Your task to perform on an android device: change notification settings in the gmail app Image 0: 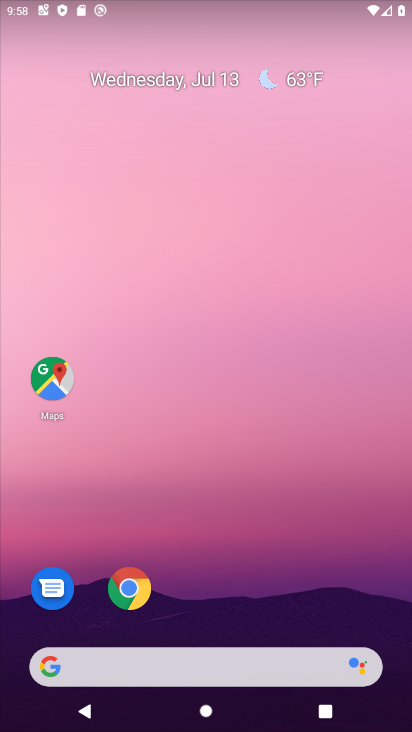
Step 0: drag from (33, 604) to (256, 107)
Your task to perform on an android device: change notification settings in the gmail app Image 1: 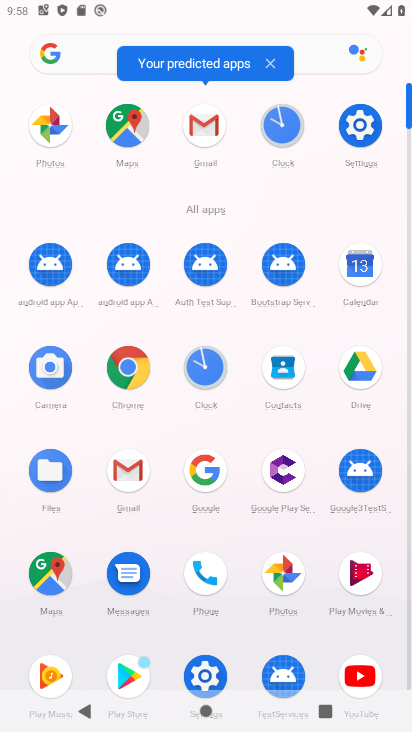
Step 1: click (214, 147)
Your task to perform on an android device: change notification settings in the gmail app Image 2: 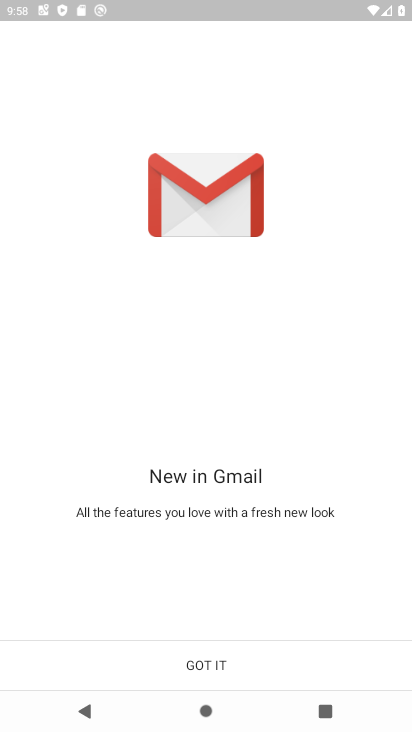
Step 2: click (213, 671)
Your task to perform on an android device: change notification settings in the gmail app Image 3: 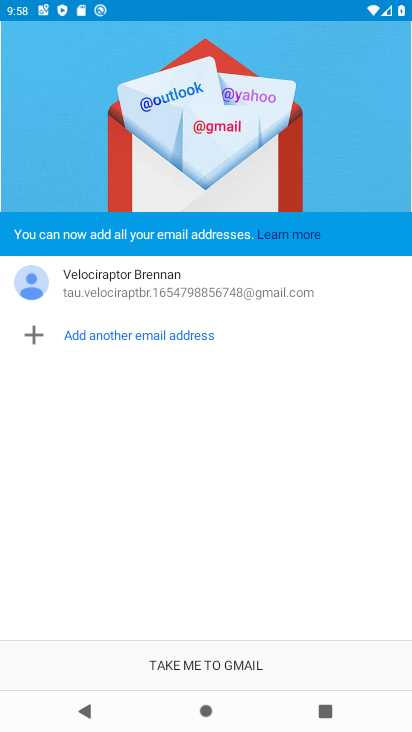
Step 3: click (216, 671)
Your task to perform on an android device: change notification settings in the gmail app Image 4: 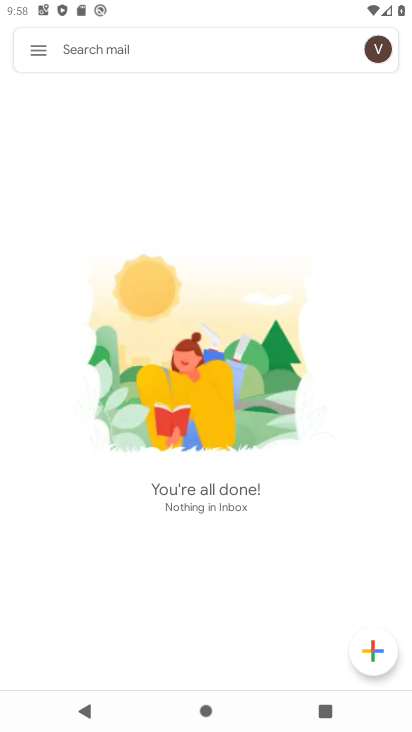
Step 4: click (37, 46)
Your task to perform on an android device: change notification settings in the gmail app Image 5: 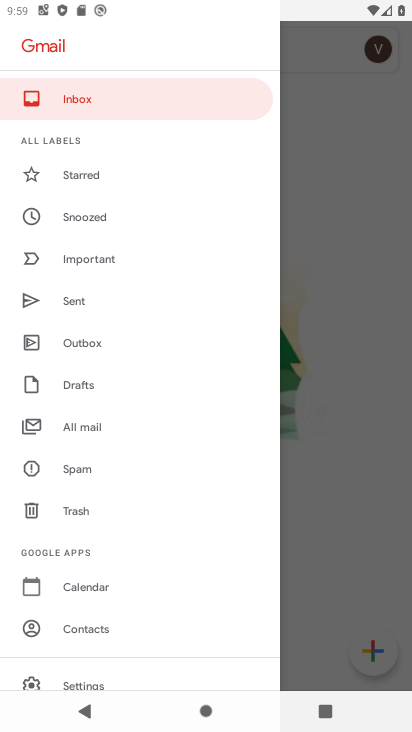
Step 5: click (64, 685)
Your task to perform on an android device: change notification settings in the gmail app Image 6: 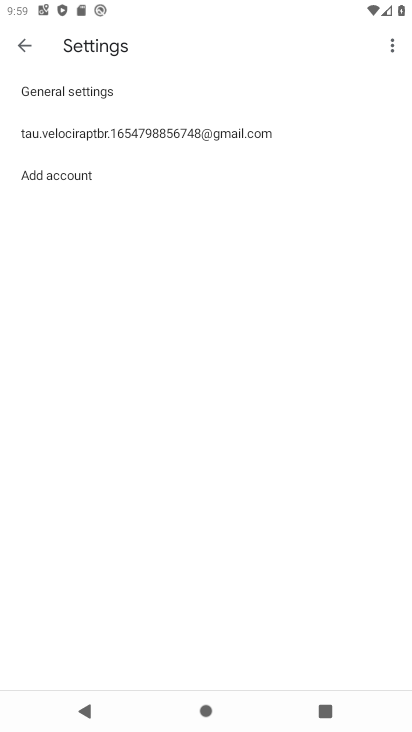
Step 6: click (117, 131)
Your task to perform on an android device: change notification settings in the gmail app Image 7: 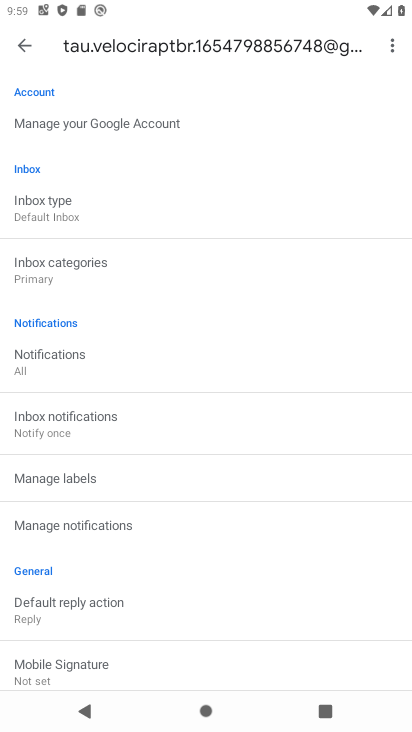
Step 7: click (120, 534)
Your task to perform on an android device: change notification settings in the gmail app Image 8: 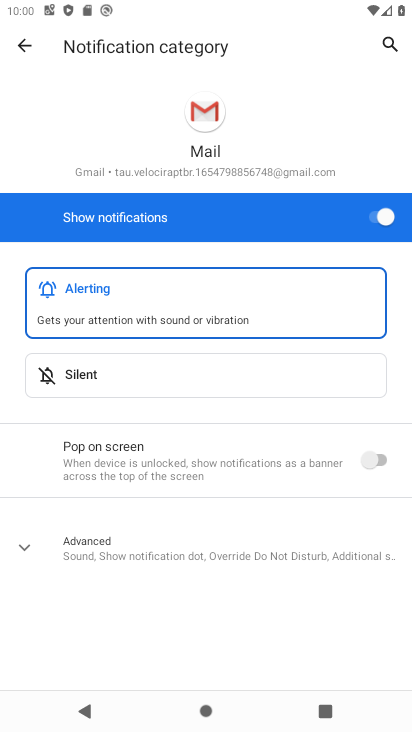
Step 8: click (394, 214)
Your task to perform on an android device: change notification settings in the gmail app Image 9: 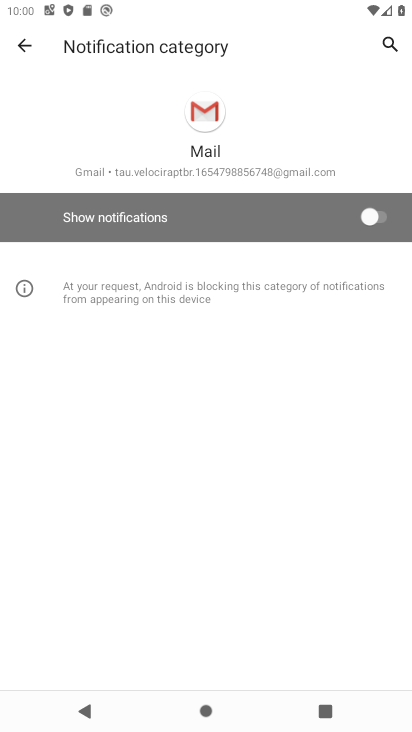
Step 9: task complete